Your task to perform on an android device: Open Maps and search for coffee Image 0: 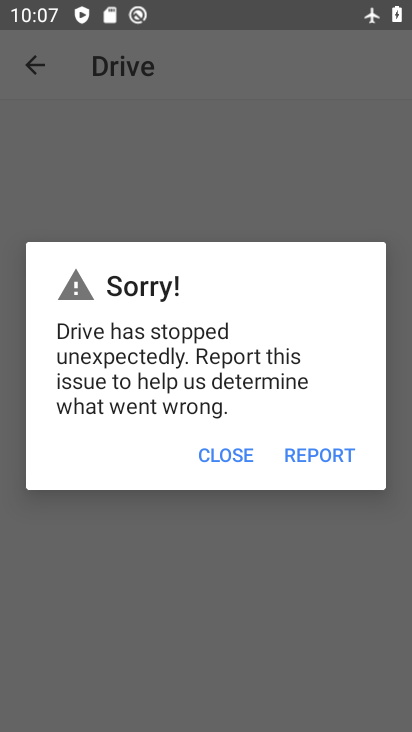
Step 0: click (234, 454)
Your task to perform on an android device: Open Maps and search for coffee Image 1: 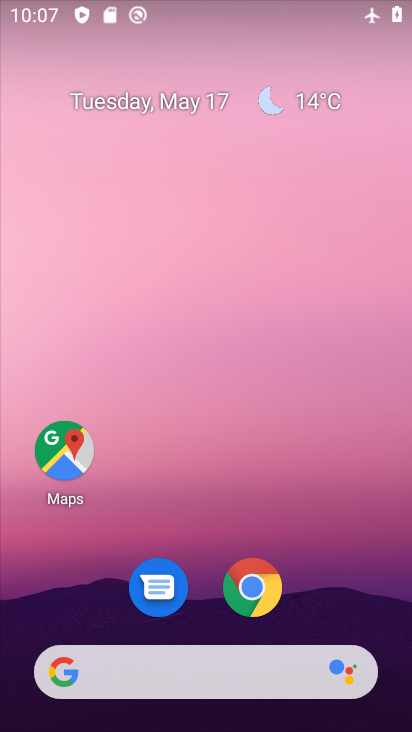
Step 1: drag from (298, 519) to (233, 227)
Your task to perform on an android device: Open Maps and search for coffee Image 2: 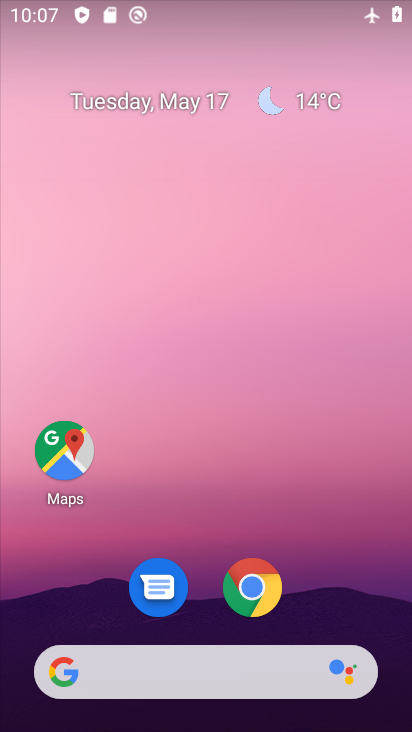
Step 2: drag from (248, 223) to (238, 188)
Your task to perform on an android device: Open Maps and search for coffee Image 3: 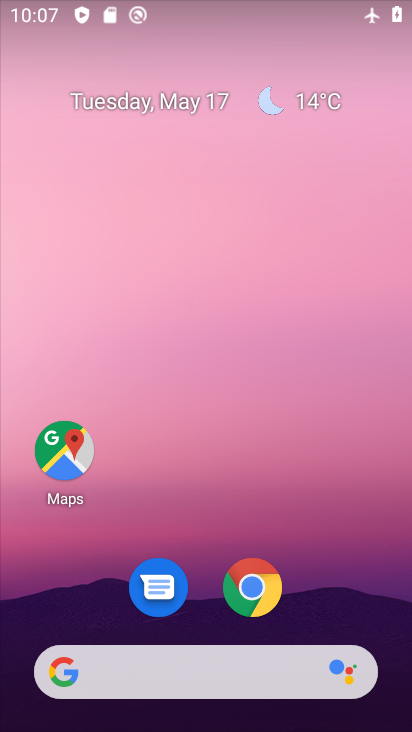
Step 3: drag from (355, 593) to (248, 155)
Your task to perform on an android device: Open Maps and search for coffee Image 4: 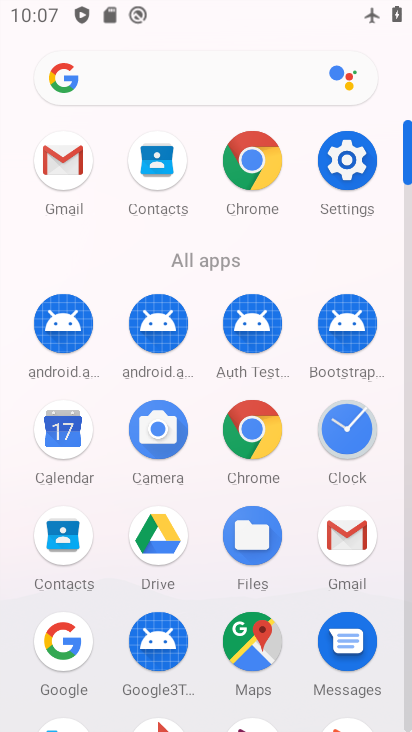
Step 4: click (234, 625)
Your task to perform on an android device: Open Maps and search for coffee Image 5: 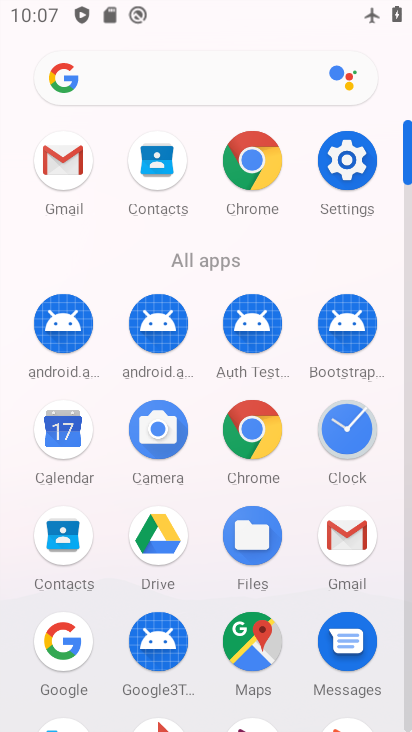
Step 5: click (236, 625)
Your task to perform on an android device: Open Maps and search for coffee Image 6: 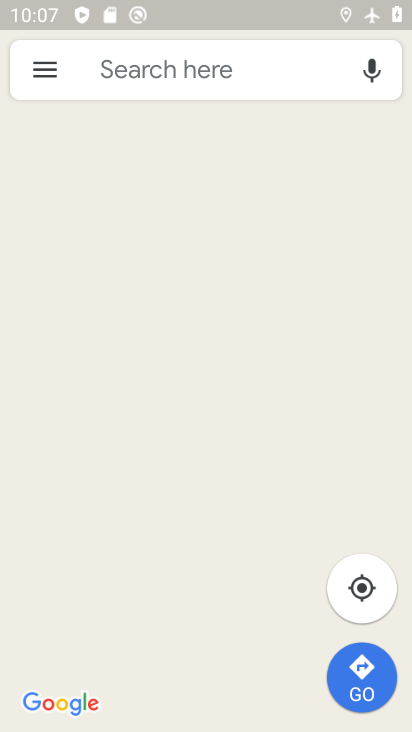
Step 6: click (118, 68)
Your task to perform on an android device: Open Maps and search for coffee Image 7: 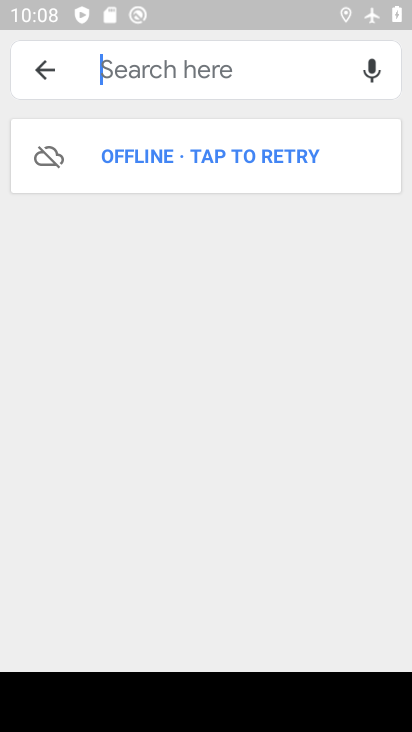
Step 7: type "coffee"
Your task to perform on an android device: Open Maps and search for coffee Image 8: 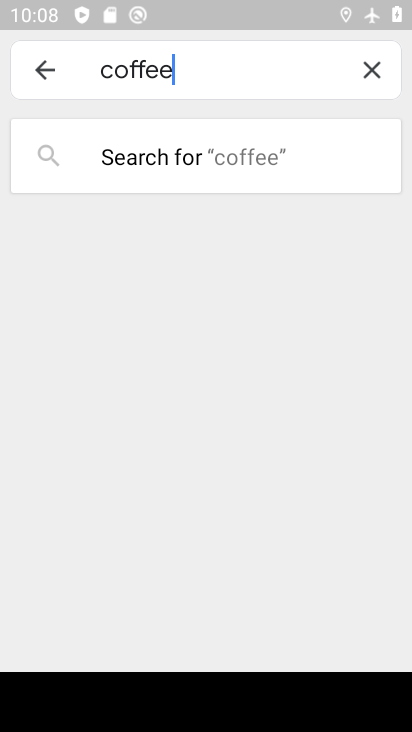
Step 8: click (213, 171)
Your task to perform on an android device: Open Maps and search for coffee Image 9: 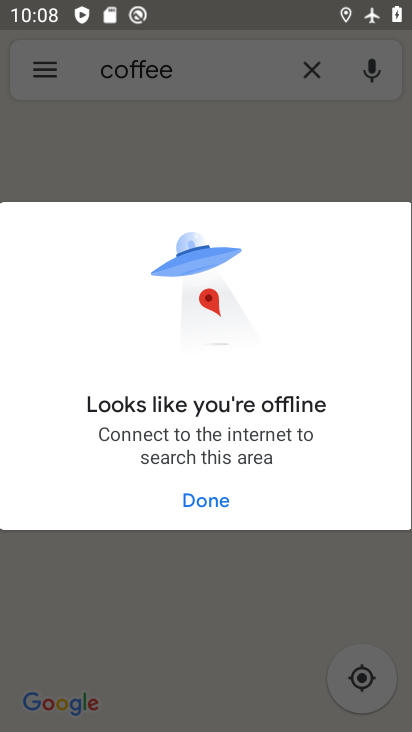
Step 9: task complete